Your task to perform on an android device: Go to eBay Image 0: 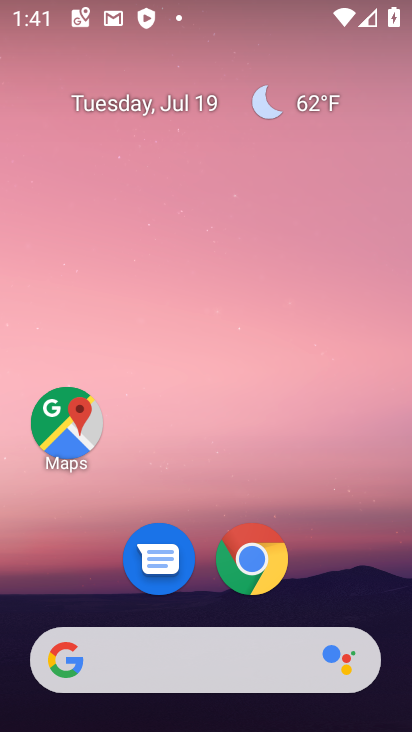
Step 0: drag from (193, 628) to (283, 43)
Your task to perform on an android device: Go to eBay Image 1: 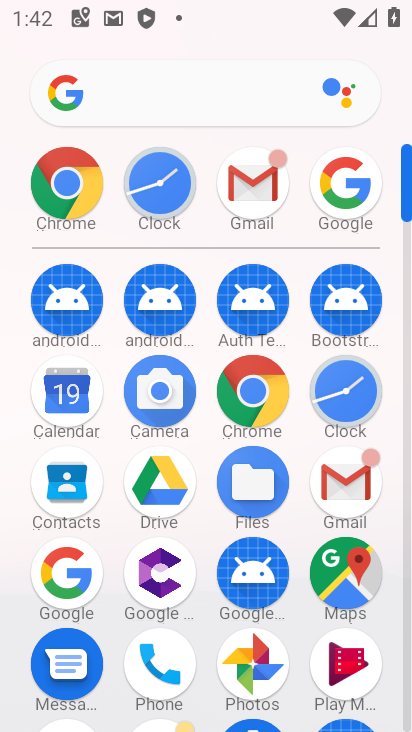
Step 1: click (81, 174)
Your task to perform on an android device: Go to eBay Image 2: 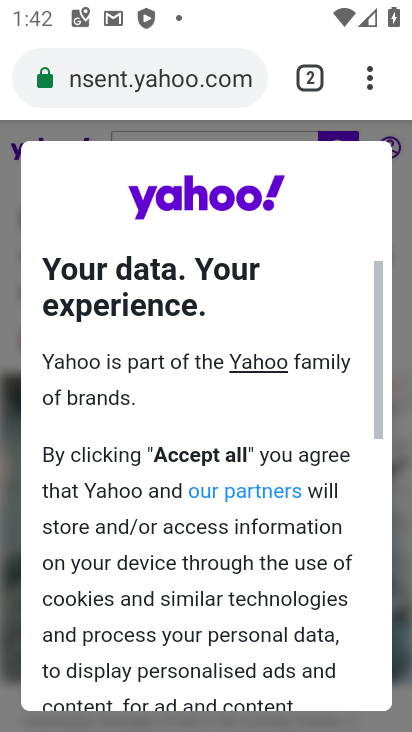
Step 2: click (208, 73)
Your task to perform on an android device: Go to eBay Image 3: 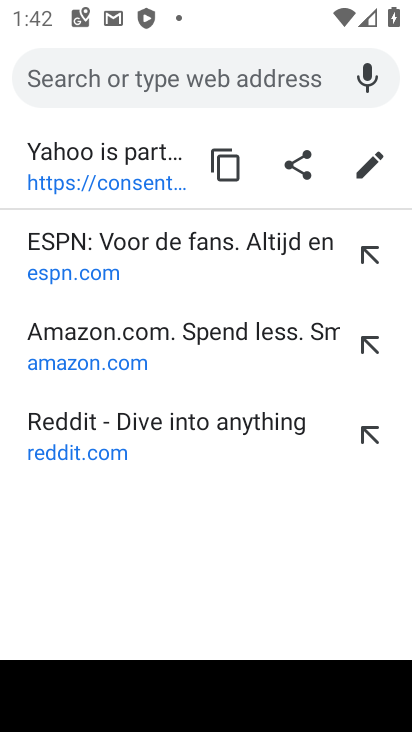
Step 3: type "ebay"
Your task to perform on an android device: Go to eBay Image 4: 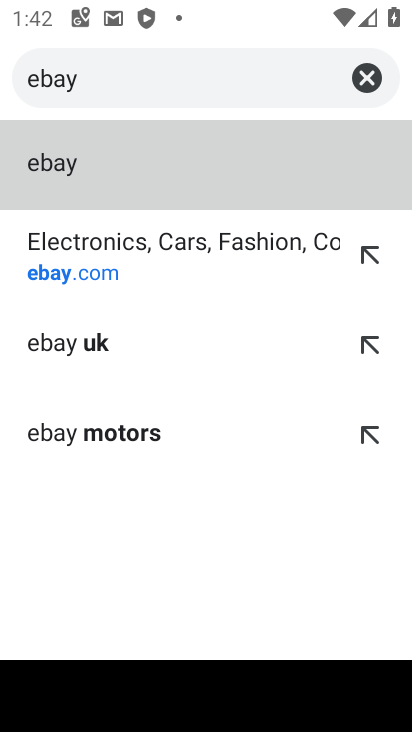
Step 4: click (136, 261)
Your task to perform on an android device: Go to eBay Image 5: 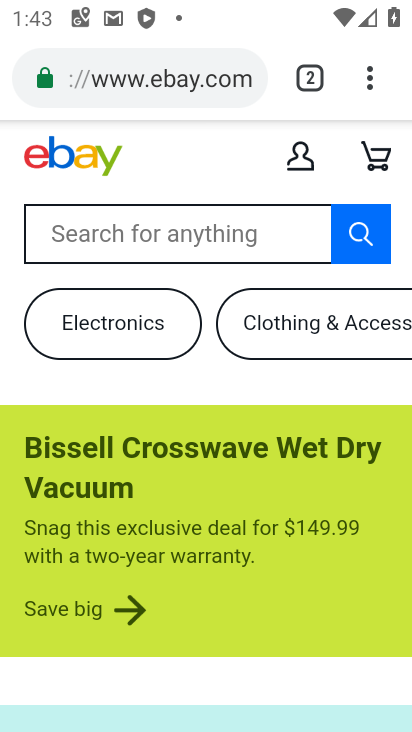
Step 5: task complete